Your task to perform on an android device: Show me productivity apps on the Play Store Image 0: 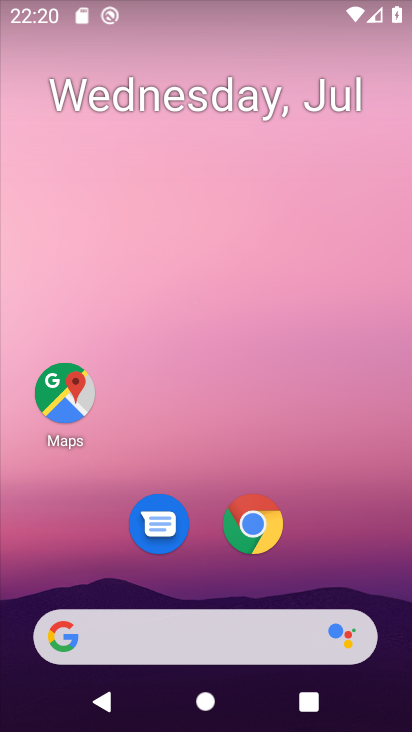
Step 0: drag from (197, 549) to (167, 115)
Your task to perform on an android device: Show me productivity apps on the Play Store Image 1: 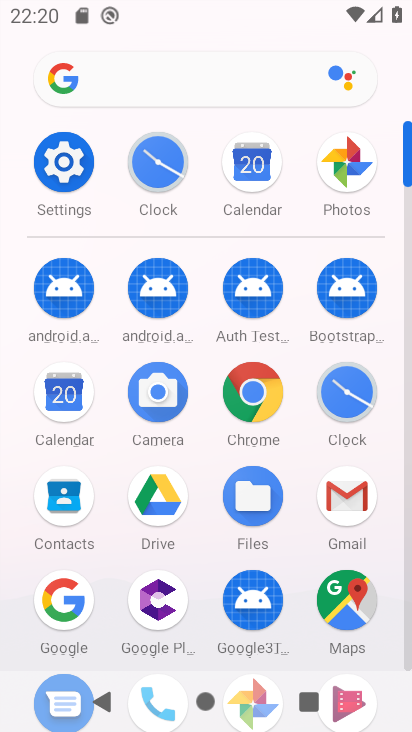
Step 1: drag from (210, 548) to (208, 308)
Your task to perform on an android device: Show me productivity apps on the Play Store Image 2: 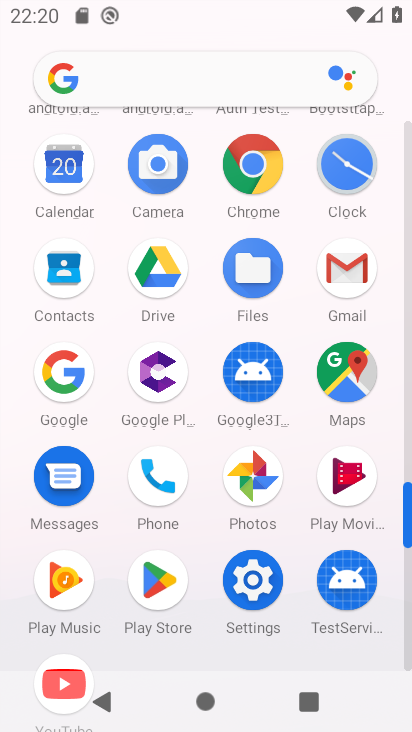
Step 2: click (173, 587)
Your task to perform on an android device: Show me productivity apps on the Play Store Image 3: 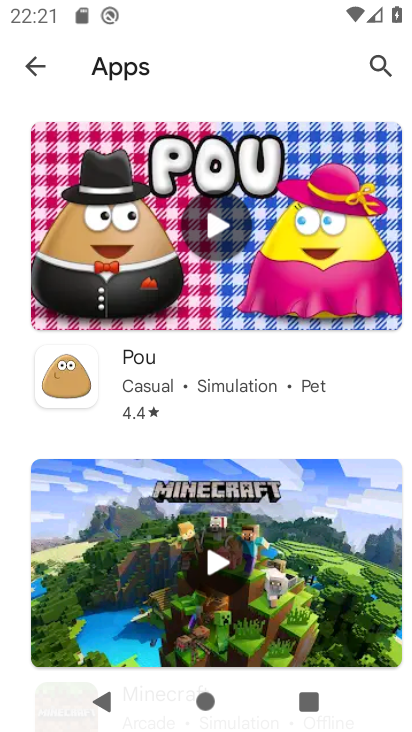
Step 3: click (43, 62)
Your task to perform on an android device: Show me productivity apps on the Play Store Image 4: 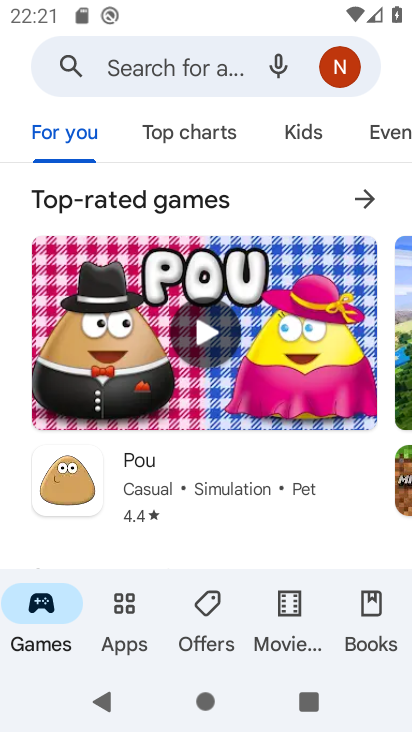
Step 4: click (127, 612)
Your task to perform on an android device: Show me productivity apps on the Play Store Image 5: 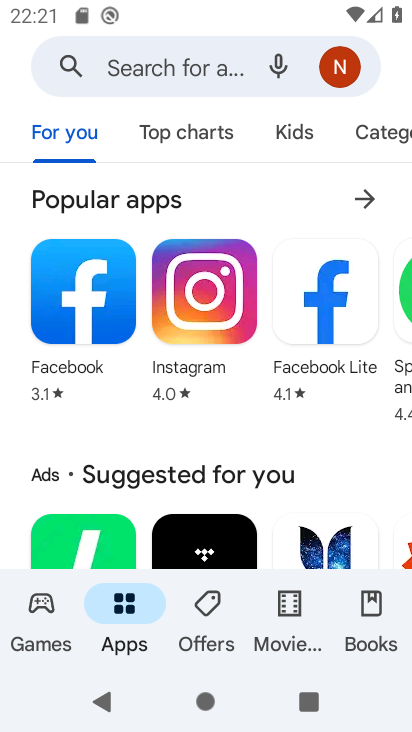
Step 5: click (372, 129)
Your task to perform on an android device: Show me productivity apps on the Play Store Image 6: 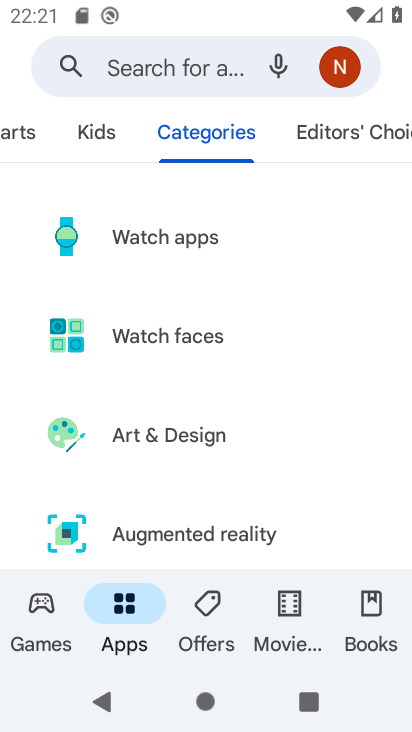
Step 6: drag from (243, 473) to (269, 162)
Your task to perform on an android device: Show me productivity apps on the Play Store Image 7: 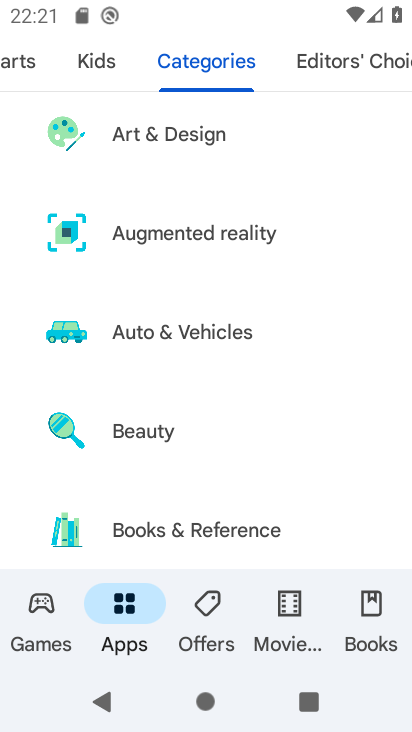
Step 7: drag from (269, 461) to (259, 216)
Your task to perform on an android device: Show me productivity apps on the Play Store Image 8: 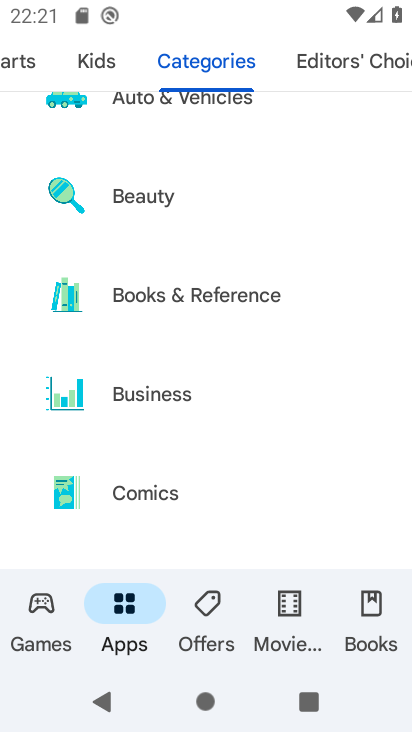
Step 8: drag from (237, 476) to (216, 197)
Your task to perform on an android device: Show me productivity apps on the Play Store Image 9: 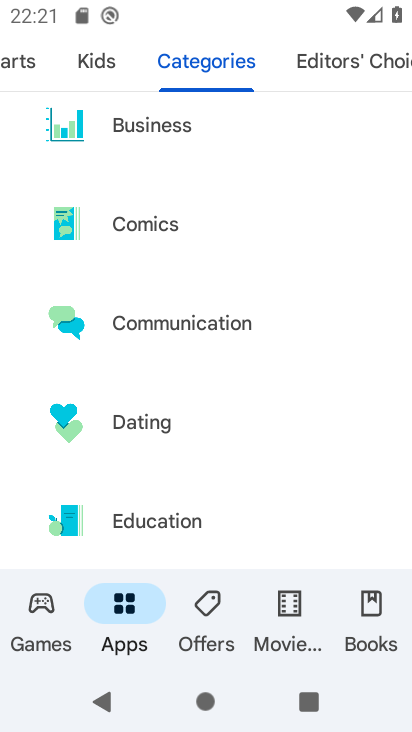
Step 9: drag from (233, 445) to (203, 172)
Your task to perform on an android device: Show me productivity apps on the Play Store Image 10: 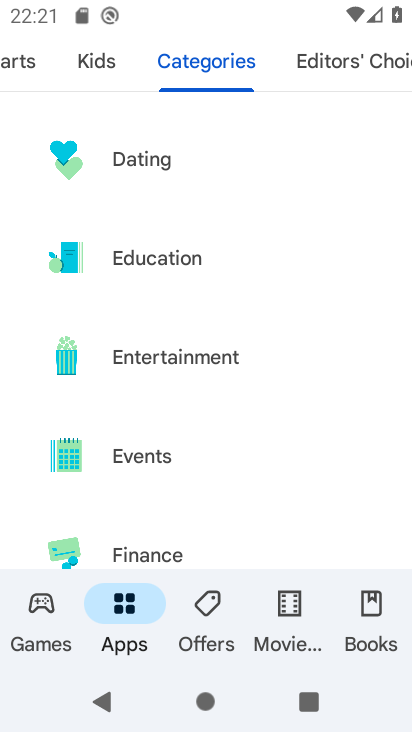
Step 10: drag from (234, 475) to (233, 168)
Your task to perform on an android device: Show me productivity apps on the Play Store Image 11: 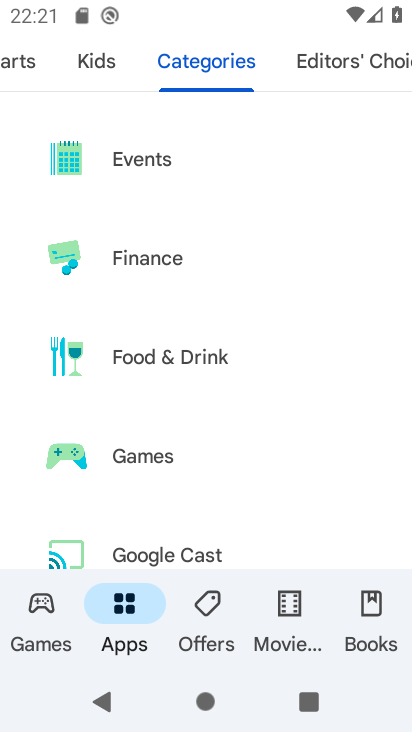
Step 11: drag from (239, 499) to (243, 218)
Your task to perform on an android device: Show me productivity apps on the Play Store Image 12: 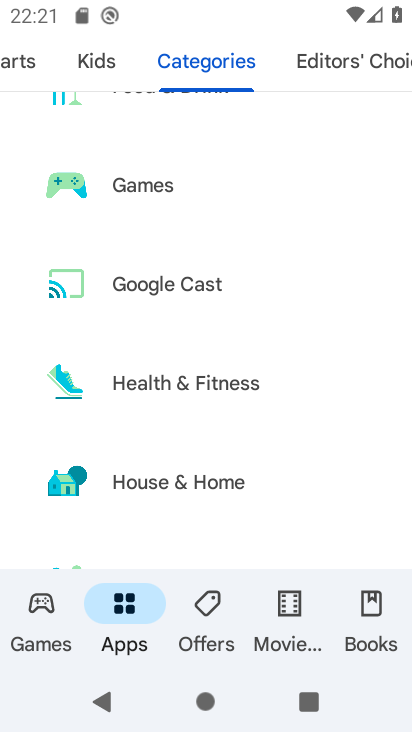
Step 12: drag from (290, 507) to (292, 176)
Your task to perform on an android device: Show me productivity apps on the Play Store Image 13: 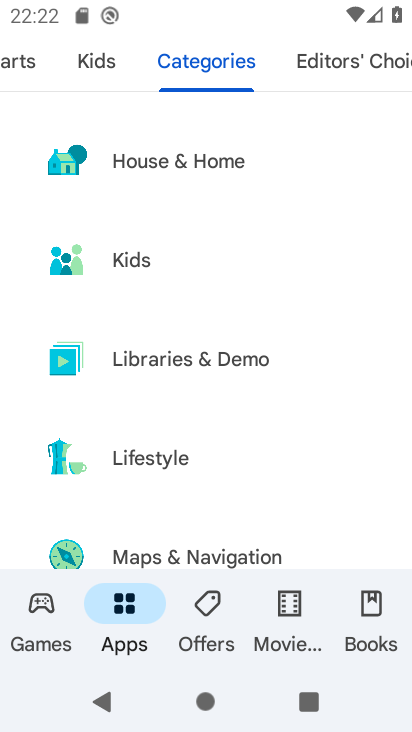
Step 13: drag from (229, 475) to (239, 163)
Your task to perform on an android device: Show me productivity apps on the Play Store Image 14: 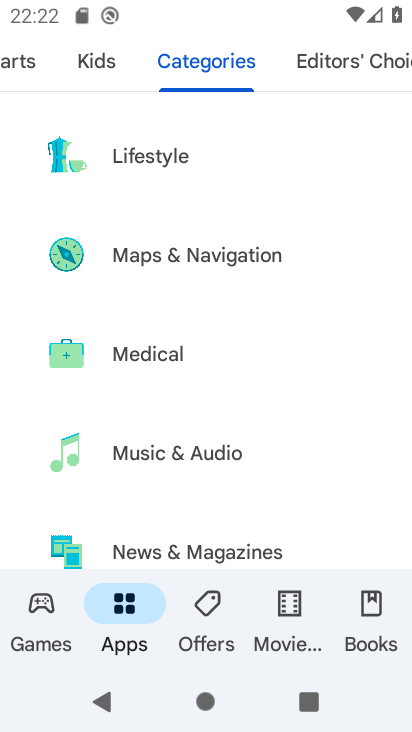
Step 14: drag from (238, 492) to (245, 185)
Your task to perform on an android device: Show me productivity apps on the Play Store Image 15: 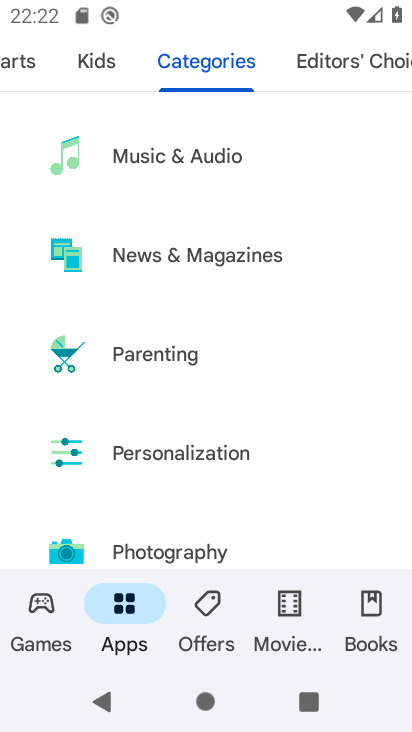
Step 15: drag from (231, 508) to (249, 169)
Your task to perform on an android device: Show me productivity apps on the Play Store Image 16: 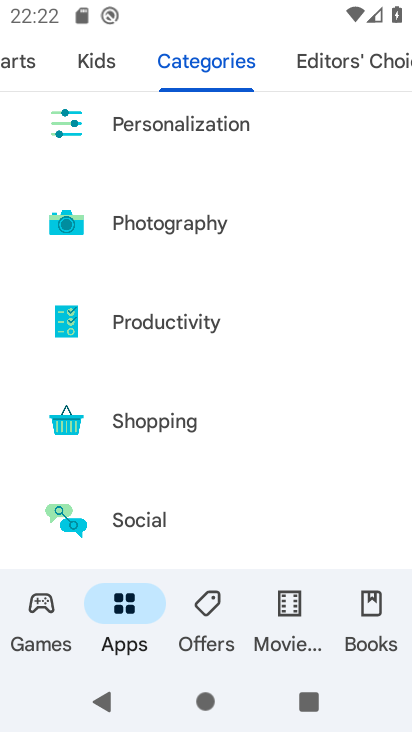
Step 16: click (209, 310)
Your task to perform on an android device: Show me productivity apps on the Play Store Image 17: 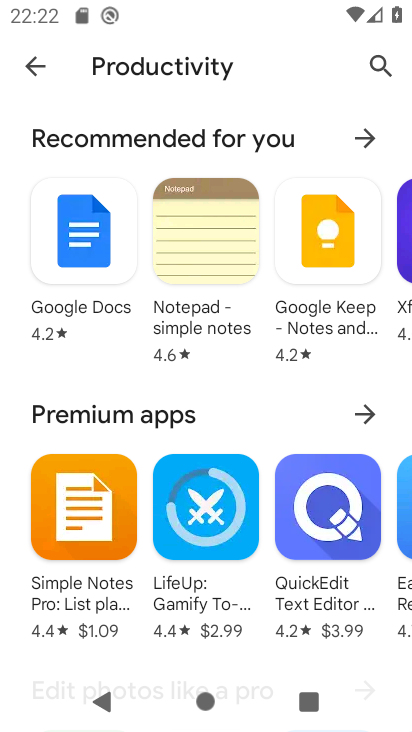
Step 17: task complete